Your task to perform on an android device: change the clock style Image 0: 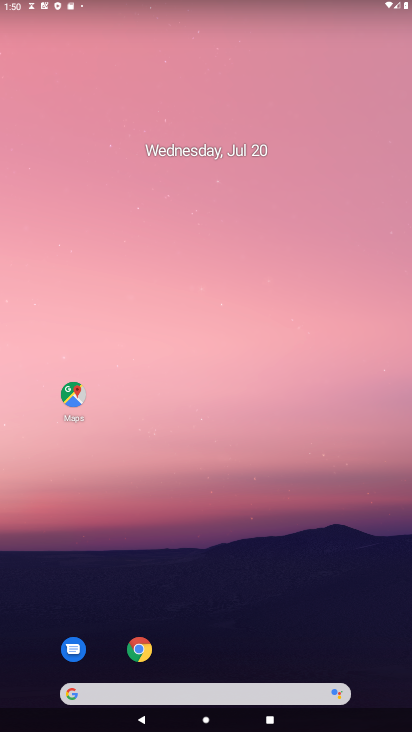
Step 0: drag from (262, 633) to (299, 71)
Your task to perform on an android device: change the clock style Image 1: 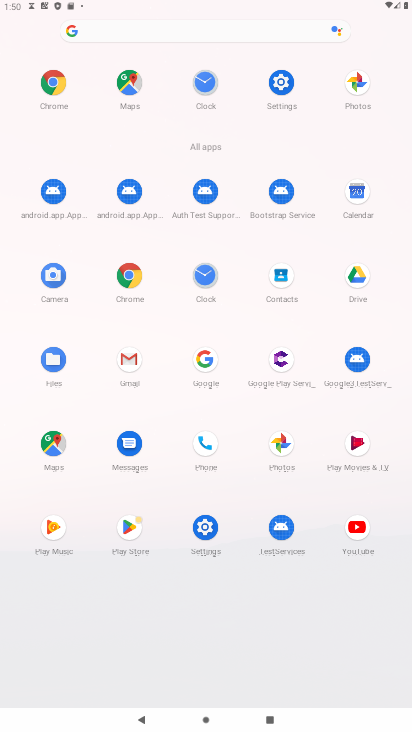
Step 1: drag from (198, 272) to (126, 214)
Your task to perform on an android device: change the clock style Image 2: 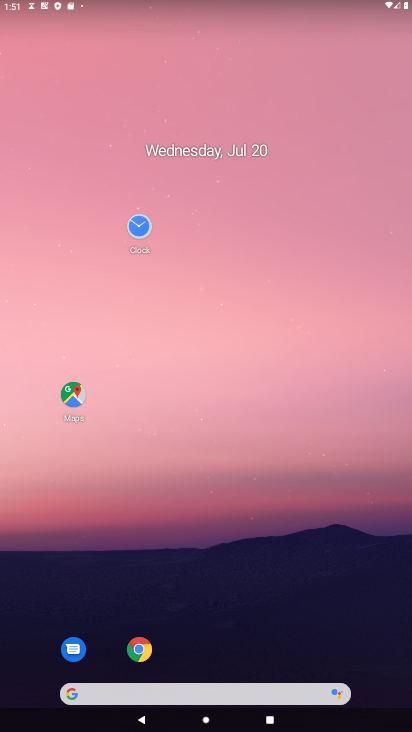
Step 2: click (137, 217)
Your task to perform on an android device: change the clock style Image 3: 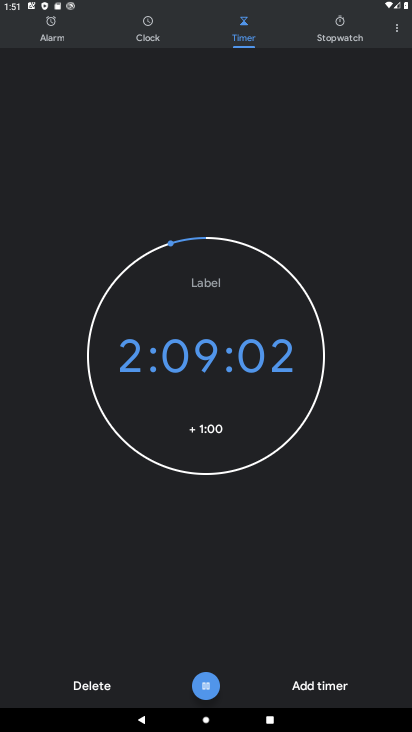
Step 3: click (397, 30)
Your task to perform on an android device: change the clock style Image 4: 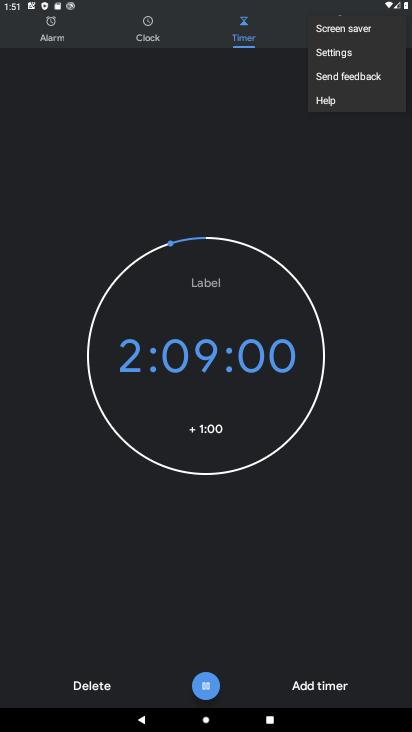
Step 4: click (315, 61)
Your task to perform on an android device: change the clock style Image 5: 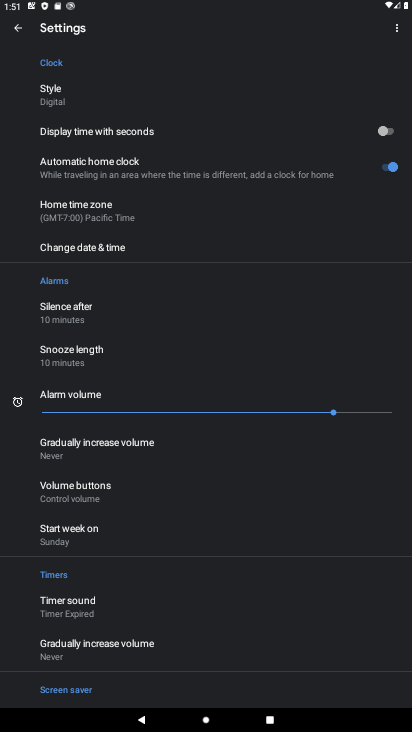
Step 5: click (83, 100)
Your task to perform on an android device: change the clock style Image 6: 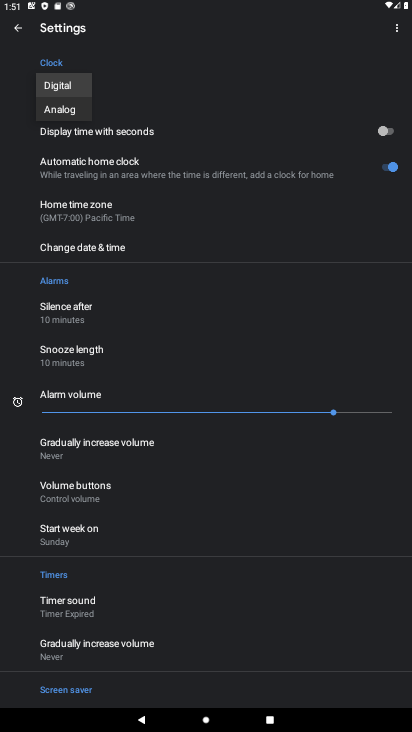
Step 6: click (83, 100)
Your task to perform on an android device: change the clock style Image 7: 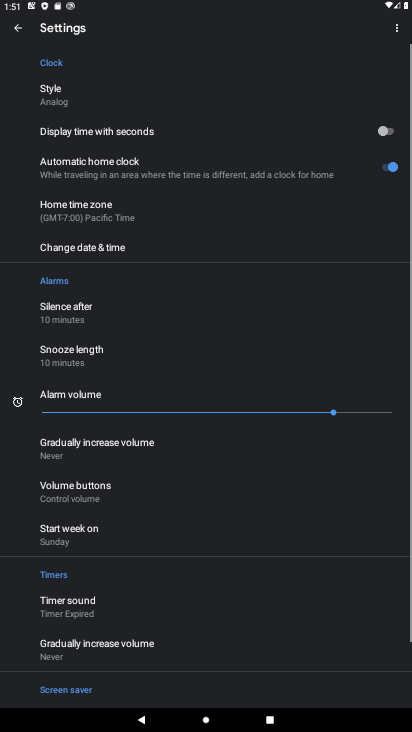
Step 7: task complete